Your task to perform on an android device: Do I have any events today? Image 0: 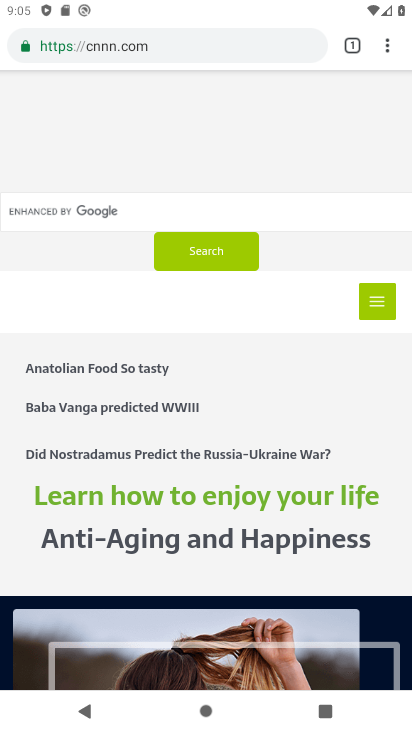
Step 0: press home button
Your task to perform on an android device: Do I have any events today? Image 1: 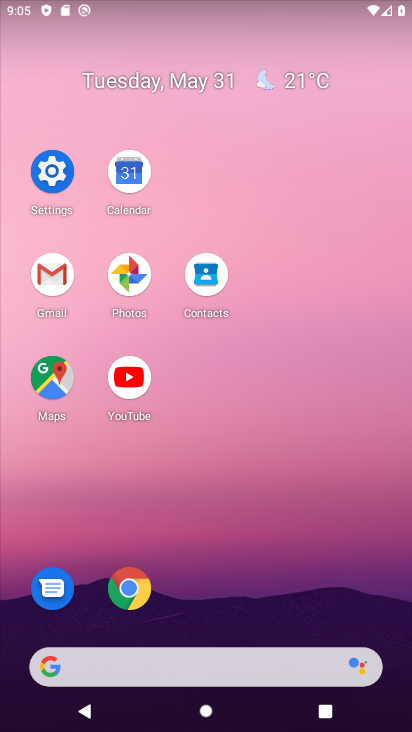
Step 1: click (128, 168)
Your task to perform on an android device: Do I have any events today? Image 2: 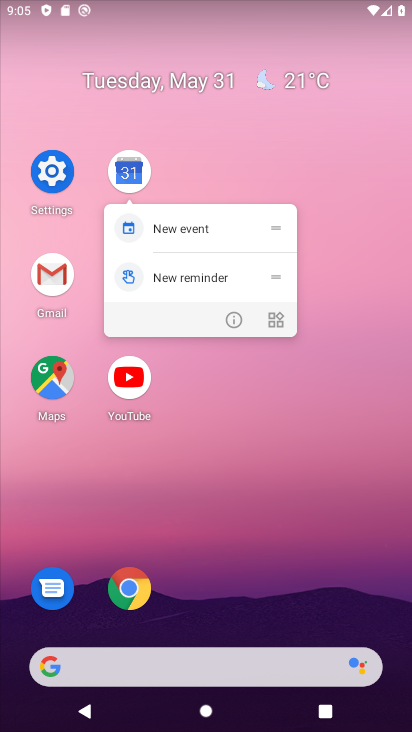
Step 2: click (139, 179)
Your task to perform on an android device: Do I have any events today? Image 3: 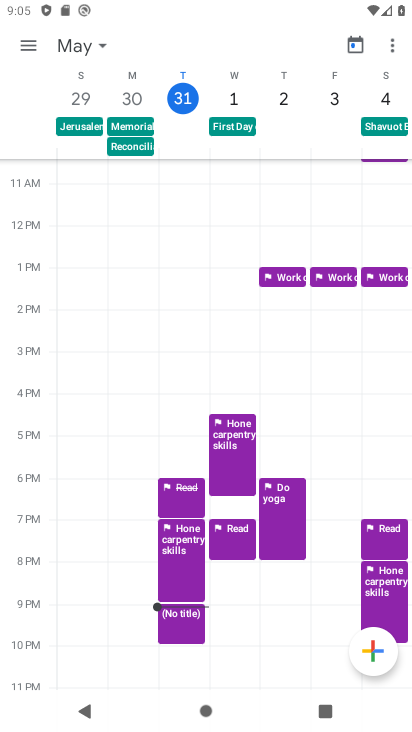
Step 3: click (250, 95)
Your task to perform on an android device: Do I have any events today? Image 4: 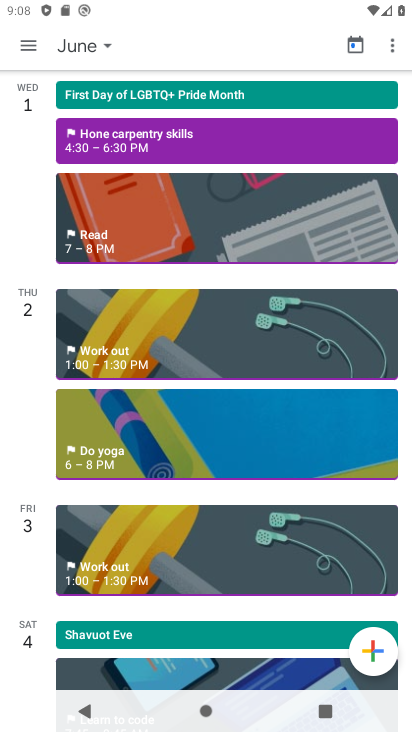
Step 4: task complete